Your task to perform on an android device: toggle location history Image 0: 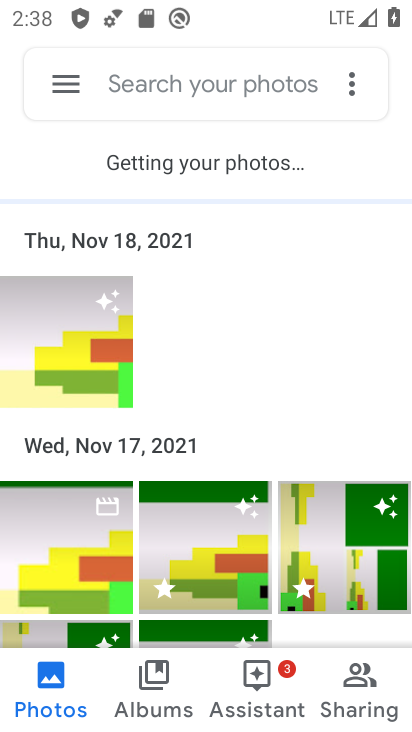
Step 0: press home button
Your task to perform on an android device: toggle location history Image 1: 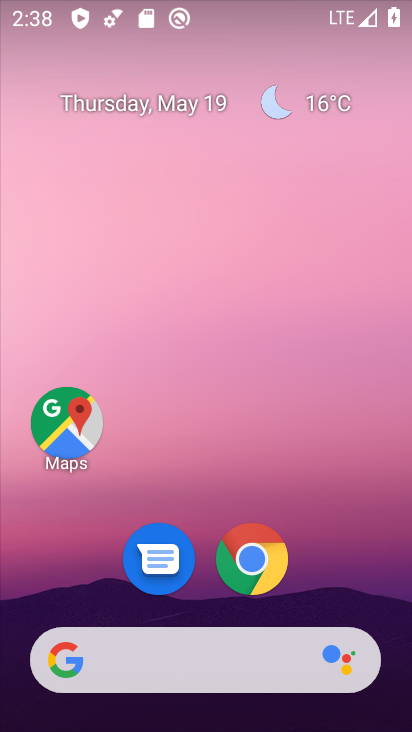
Step 1: drag from (198, 596) to (198, 224)
Your task to perform on an android device: toggle location history Image 2: 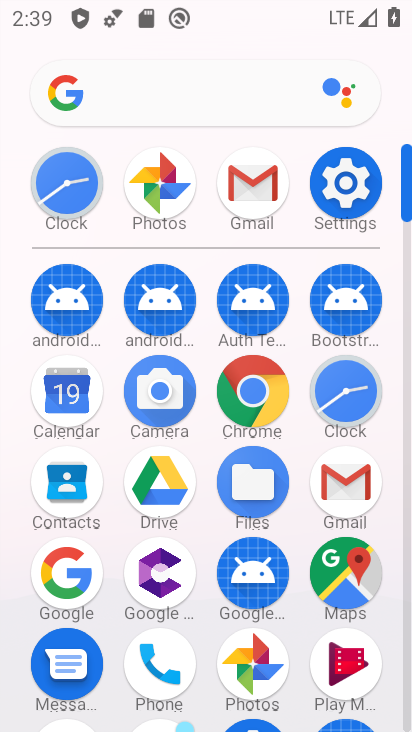
Step 2: click (353, 194)
Your task to perform on an android device: toggle location history Image 3: 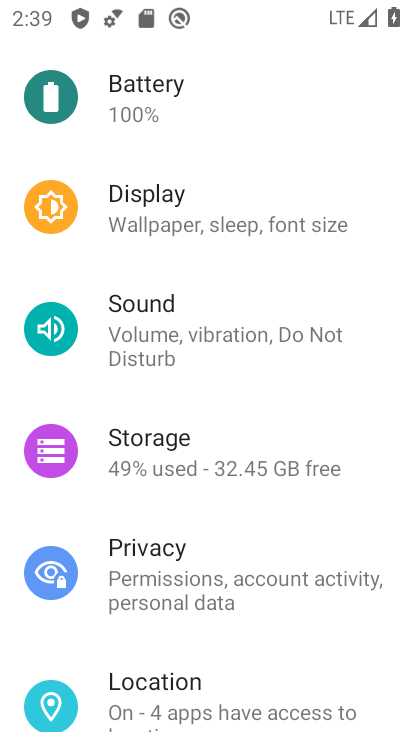
Step 3: click (168, 674)
Your task to perform on an android device: toggle location history Image 4: 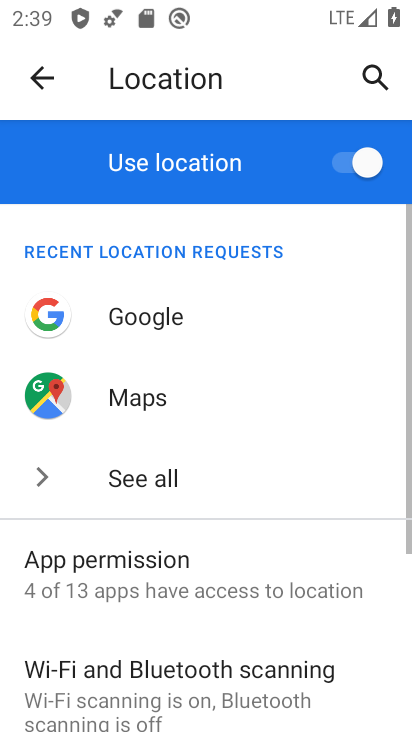
Step 4: drag from (203, 643) to (193, 298)
Your task to perform on an android device: toggle location history Image 5: 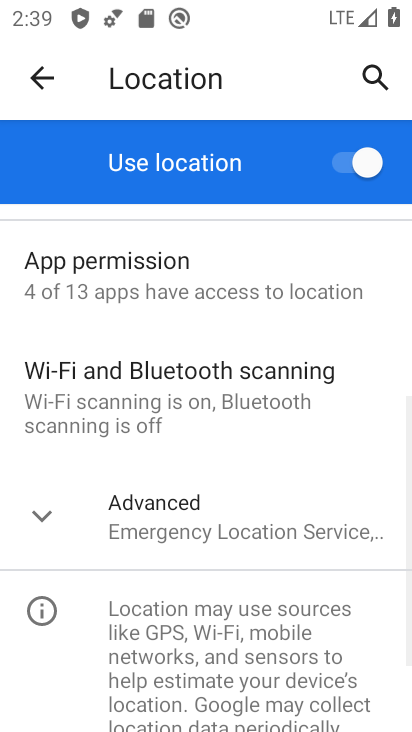
Step 5: drag from (195, 587) to (215, 436)
Your task to perform on an android device: toggle location history Image 6: 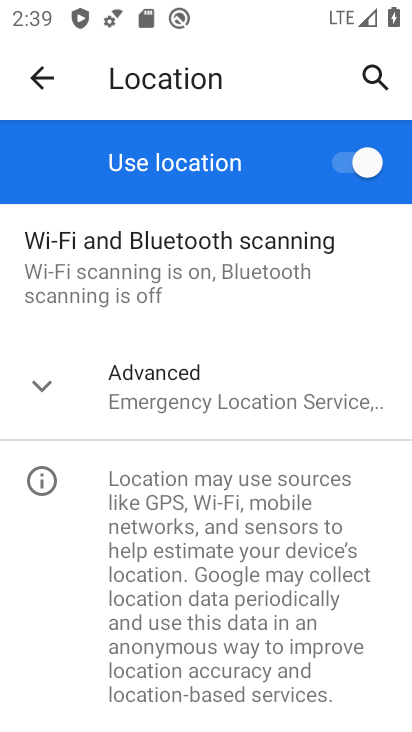
Step 6: click (198, 397)
Your task to perform on an android device: toggle location history Image 7: 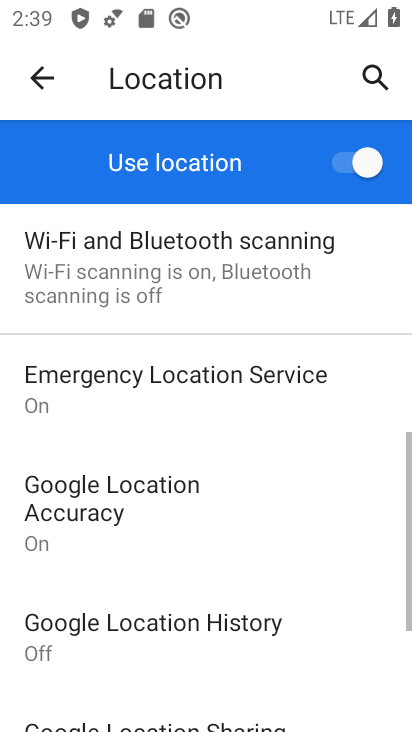
Step 7: drag from (243, 644) to (243, 468)
Your task to perform on an android device: toggle location history Image 8: 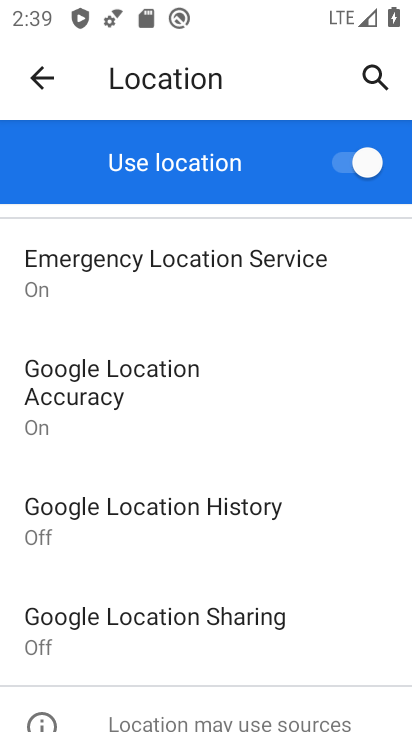
Step 8: click (218, 513)
Your task to perform on an android device: toggle location history Image 9: 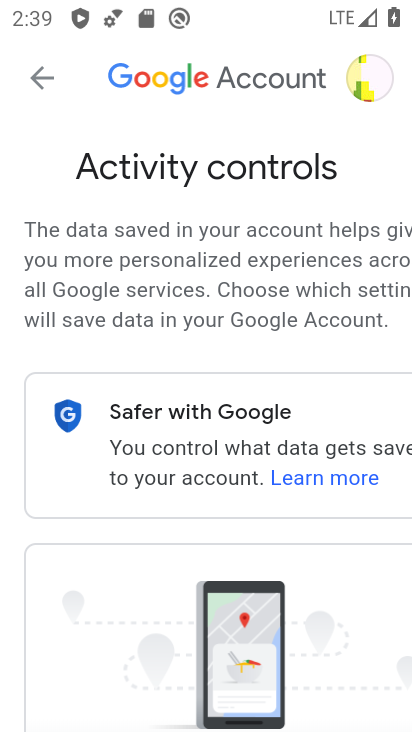
Step 9: drag from (229, 602) to (221, 303)
Your task to perform on an android device: toggle location history Image 10: 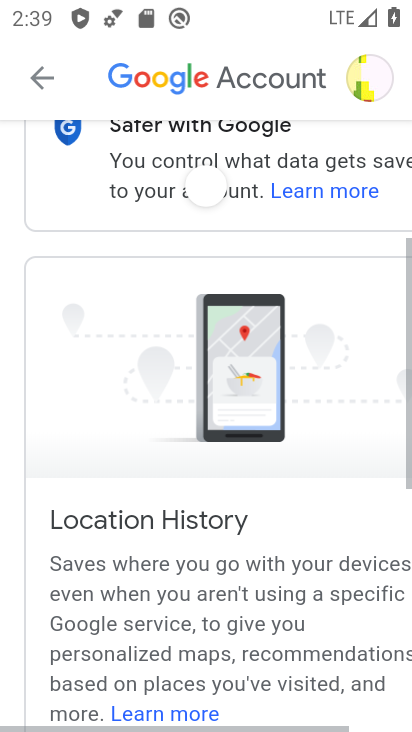
Step 10: drag from (209, 568) to (204, 269)
Your task to perform on an android device: toggle location history Image 11: 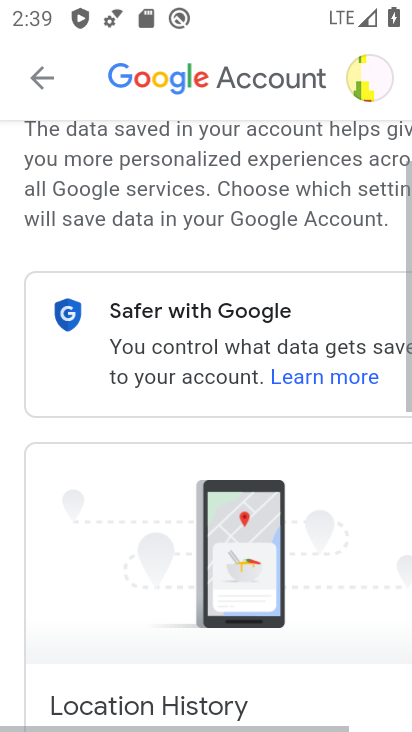
Step 11: drag from (204, 523) to (205, 278)
Your task to perform on an android device: toggle location history Image 12: 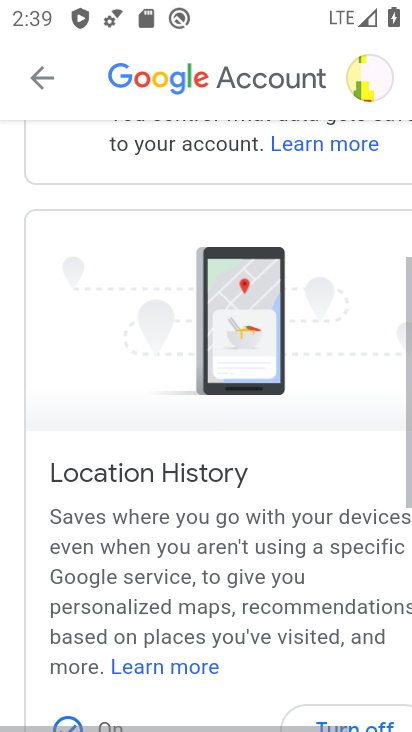
Step 12: drag from (212, 555) to (208, 256)
Your task to perform on an android device: toggle location history Image 13: 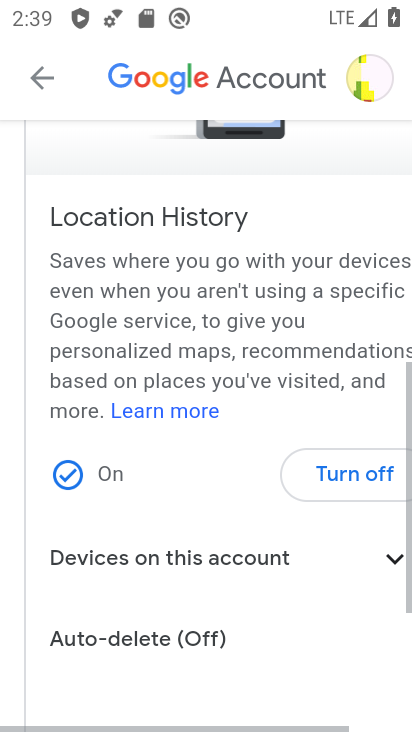
Step 13: drag from (208, 527) to (206, 282)
Your task to perform on an android device: toggle location history Image 14: 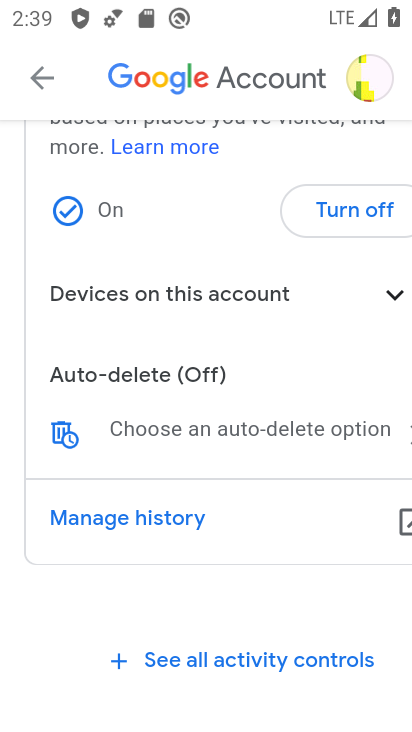
Step 14: click (315, 212)
Your task to perform on an android device: toggle location history Image 15: 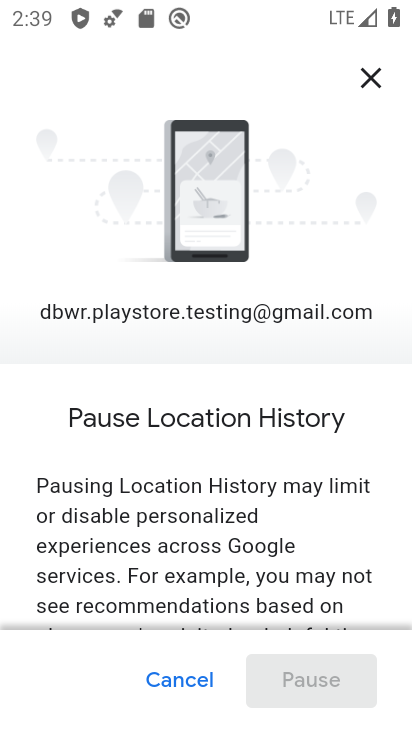
Step 15: drag from (282, 538) to (282, 257)
Your task to perform on an android device: toggle location history Image 16: 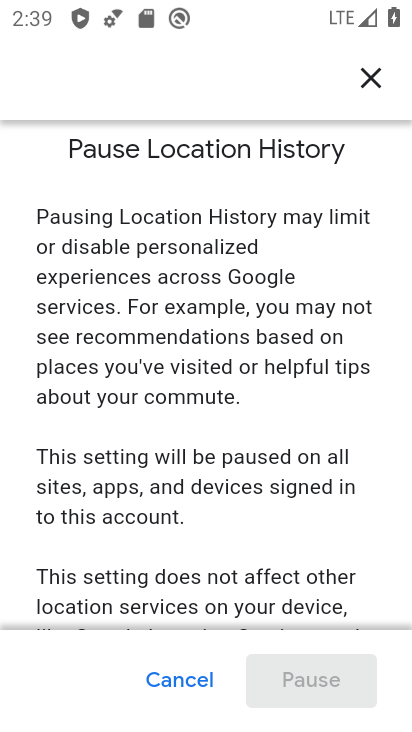
Step 16: drag from (282, 497) to (282, 245)
Your task to perform on an android device: toggle location history Image 17: 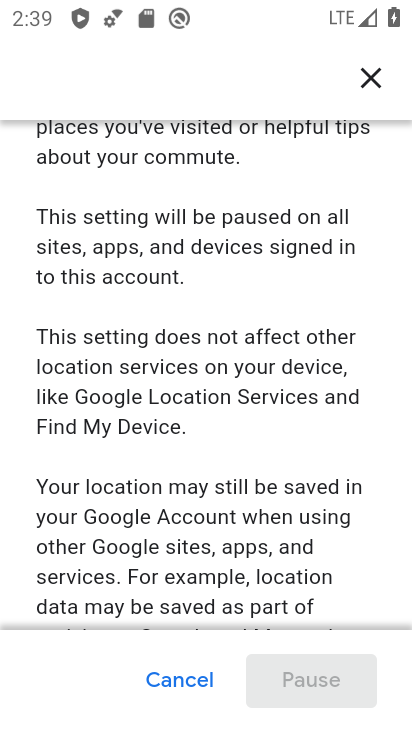
Step 17: drag from (282, 469) to (288, 288)
Your task to perform on an android device: toggle location history Image 18: 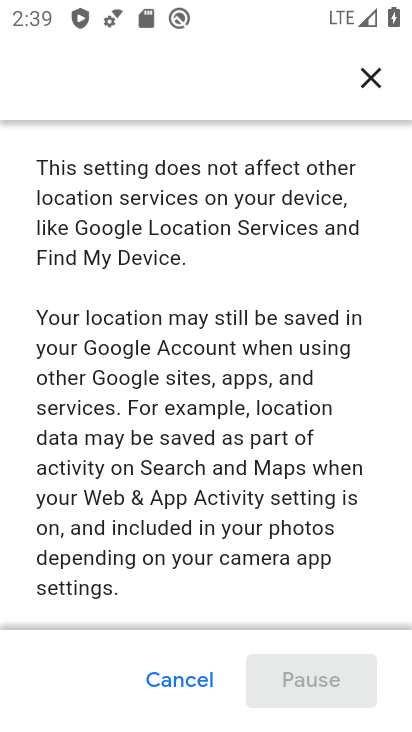
Step 18: drag from (289, 544) to (308, 305)
Your task to perform on an android device: toggle location history Image 19: 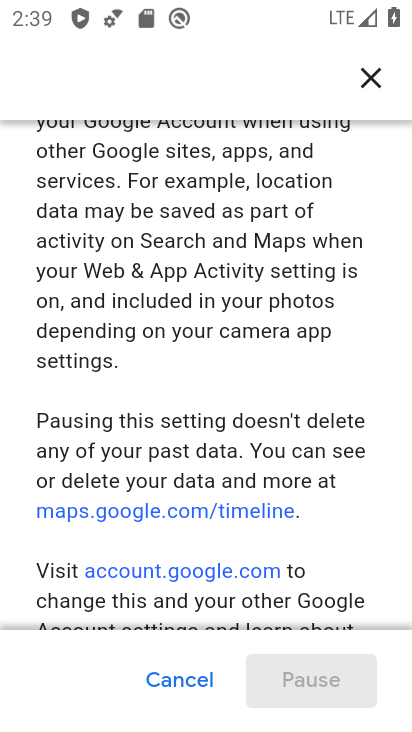
Step 19: drag from (242, 473) to (242, 297)
Your task to perform on an android device: toggle location history Image 20: 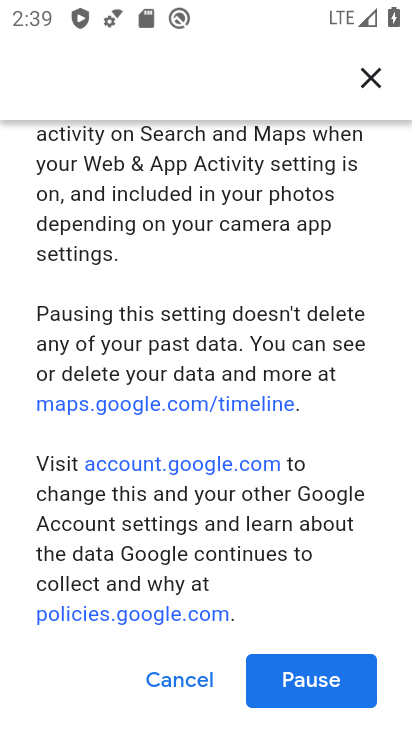
Step 20: click (312, 681)
Your task to perform on an android device: toggle location history Image 21: 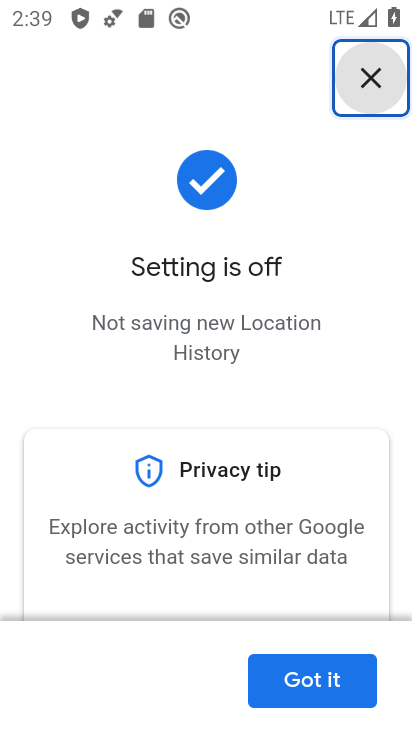
Step 21: task complete